Your task to perform on an android device: open app "Google Home" (install if not already installed) Image 0: 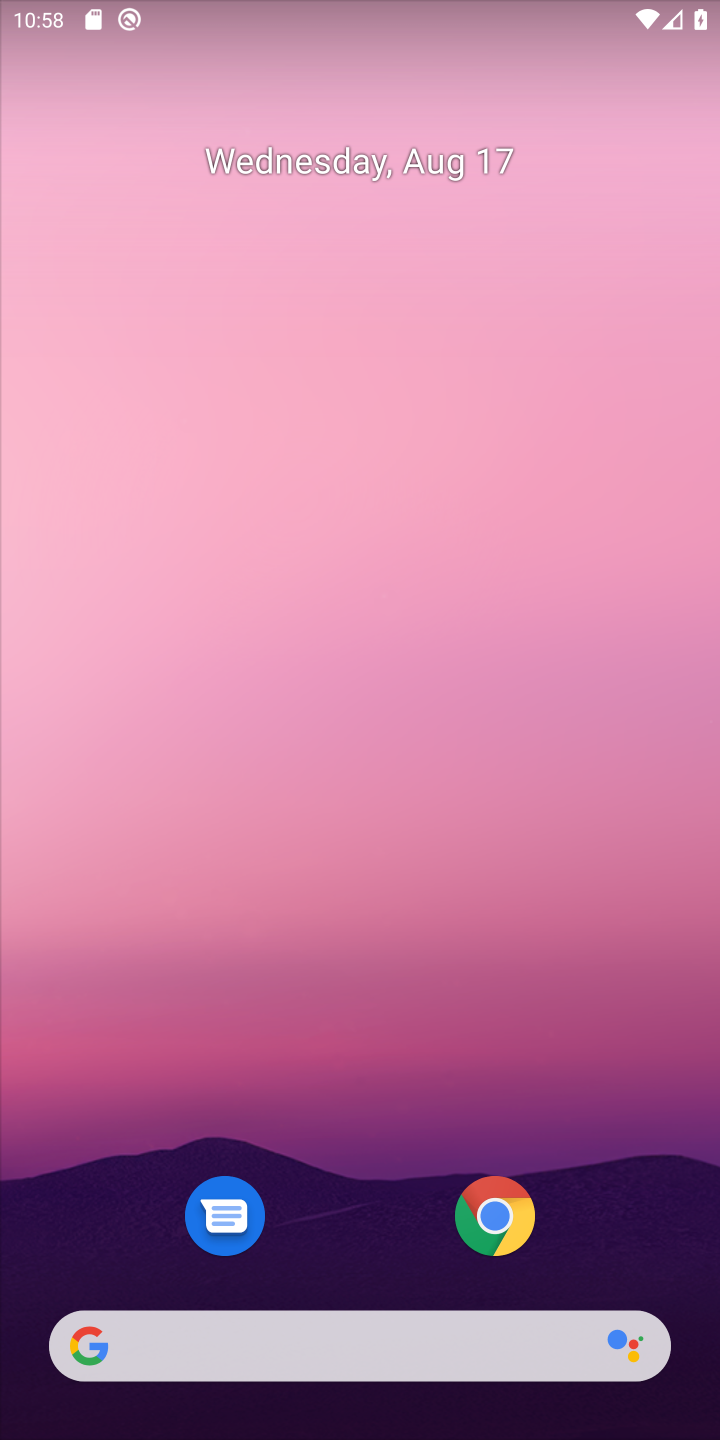
Step 0: drag from (380, 1122) to (340, 637)
Your task to perform on an android device: open app "Google Home" (install if not already installed) Image 1: 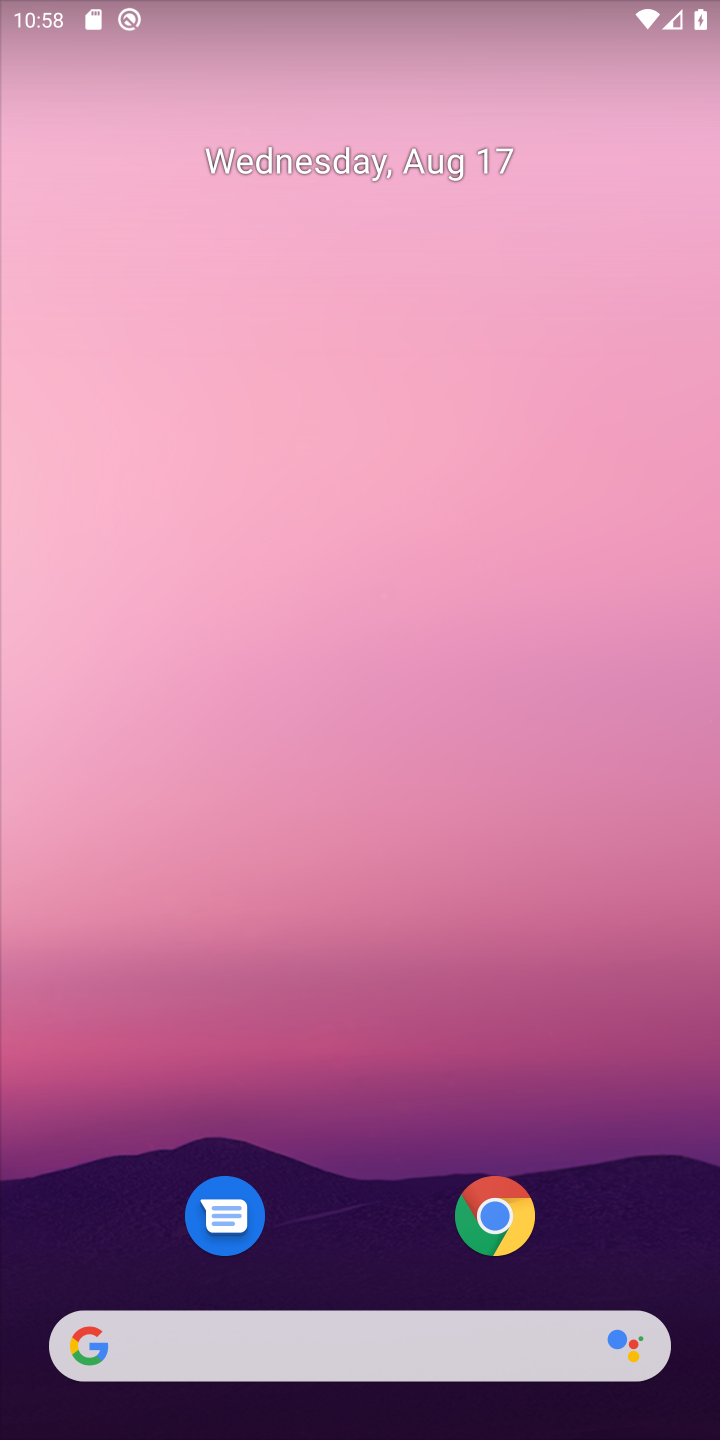
Step 1: drag from (420, 1140) to (389, 488)
Your task to perform on an android device: open app "Google Home" (install if not already installed) Image 2: 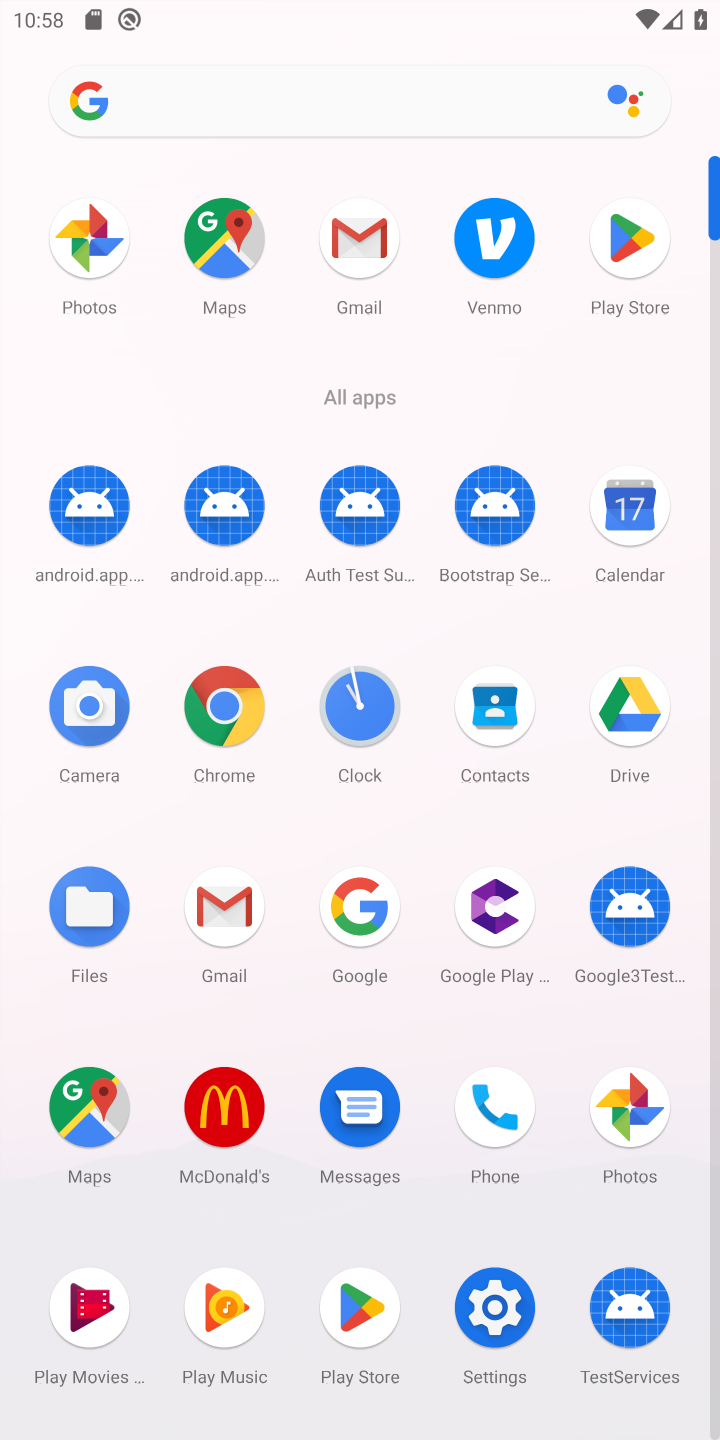
Step 2: click (362, 1301)
Your task to perform on an android device: open app "Google Home" (install if not already installed) Image 3: 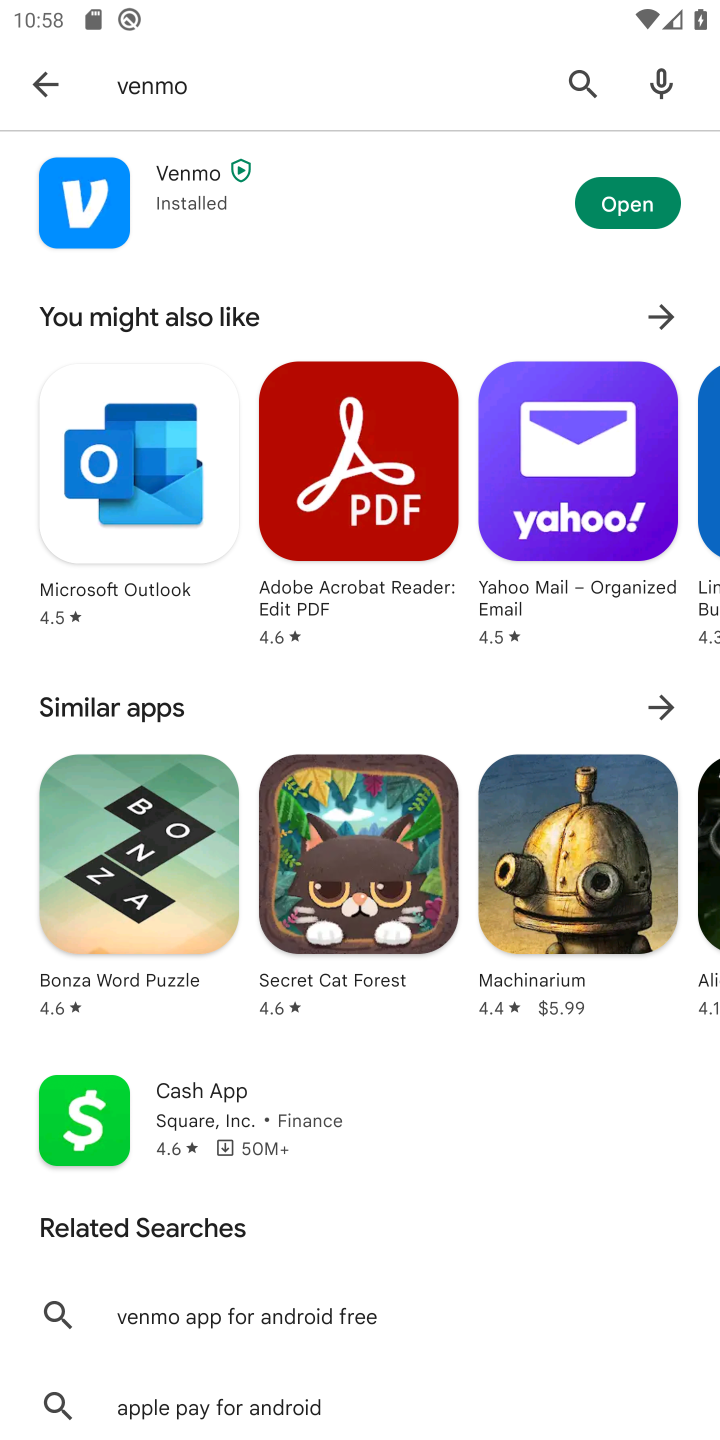
Step 3: click (570, 81)
Your task to perform on an android device: open app "Google Home" (install if not already installed) Image 4: 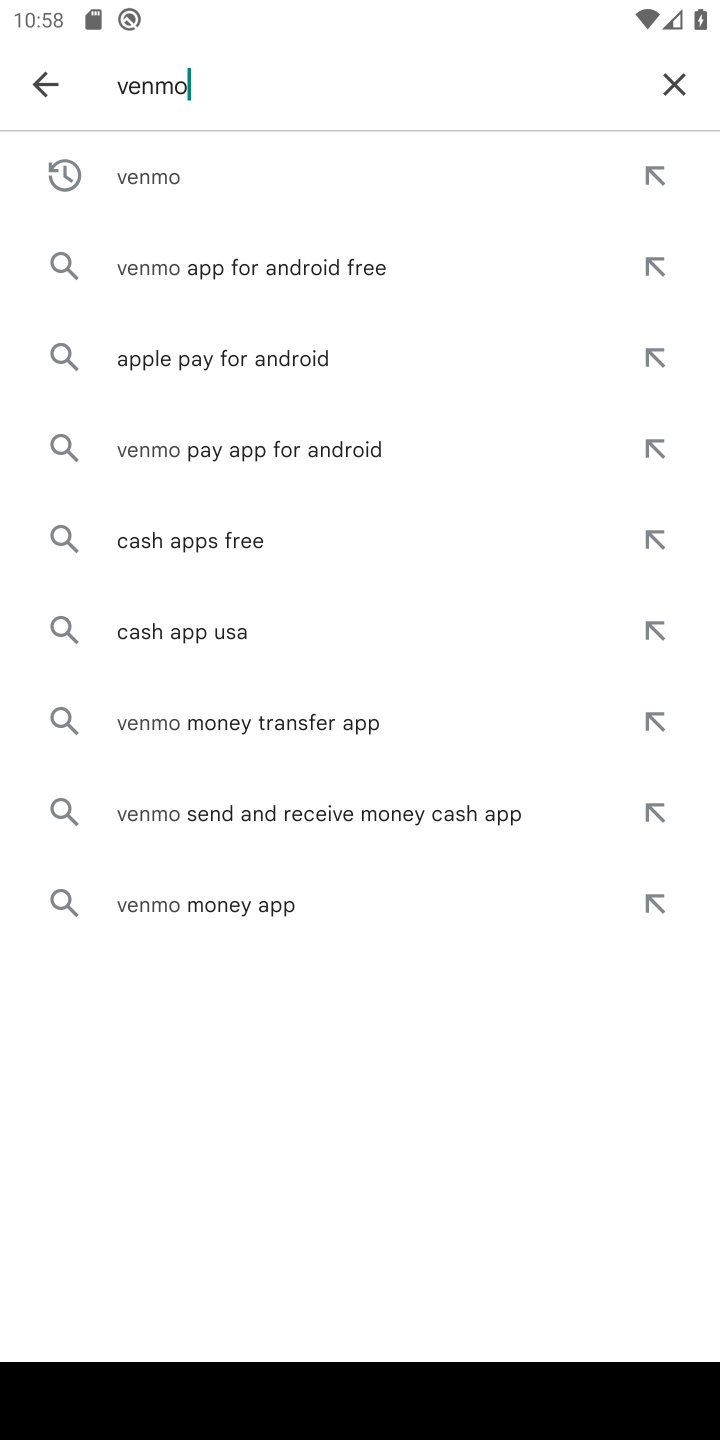
Step 4: click (683, 93)
Your task to perform on an android device: open app "Google Home" (install if not already installed) Image 5: 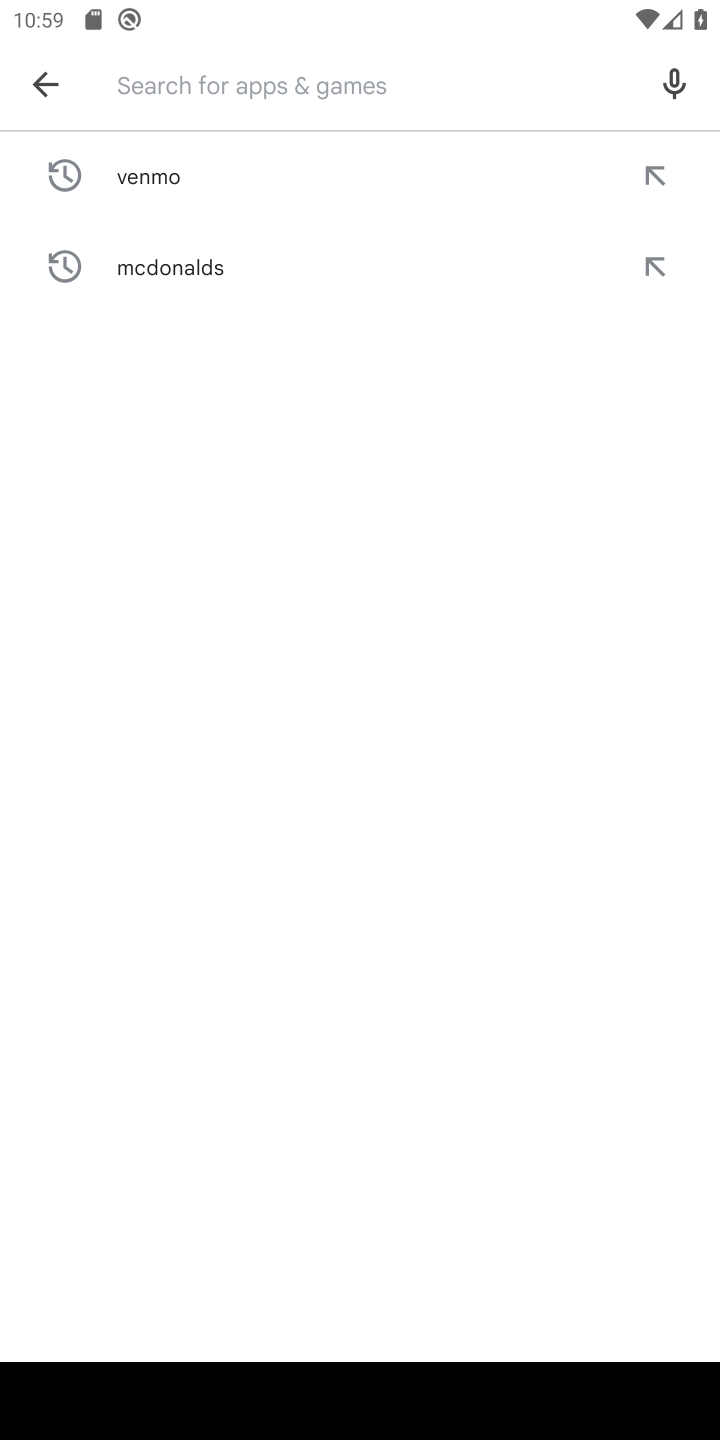
Step 5: type "google home"
Your task to perform on an android device: open app "Google Home" (install if not already installed) Image 6: 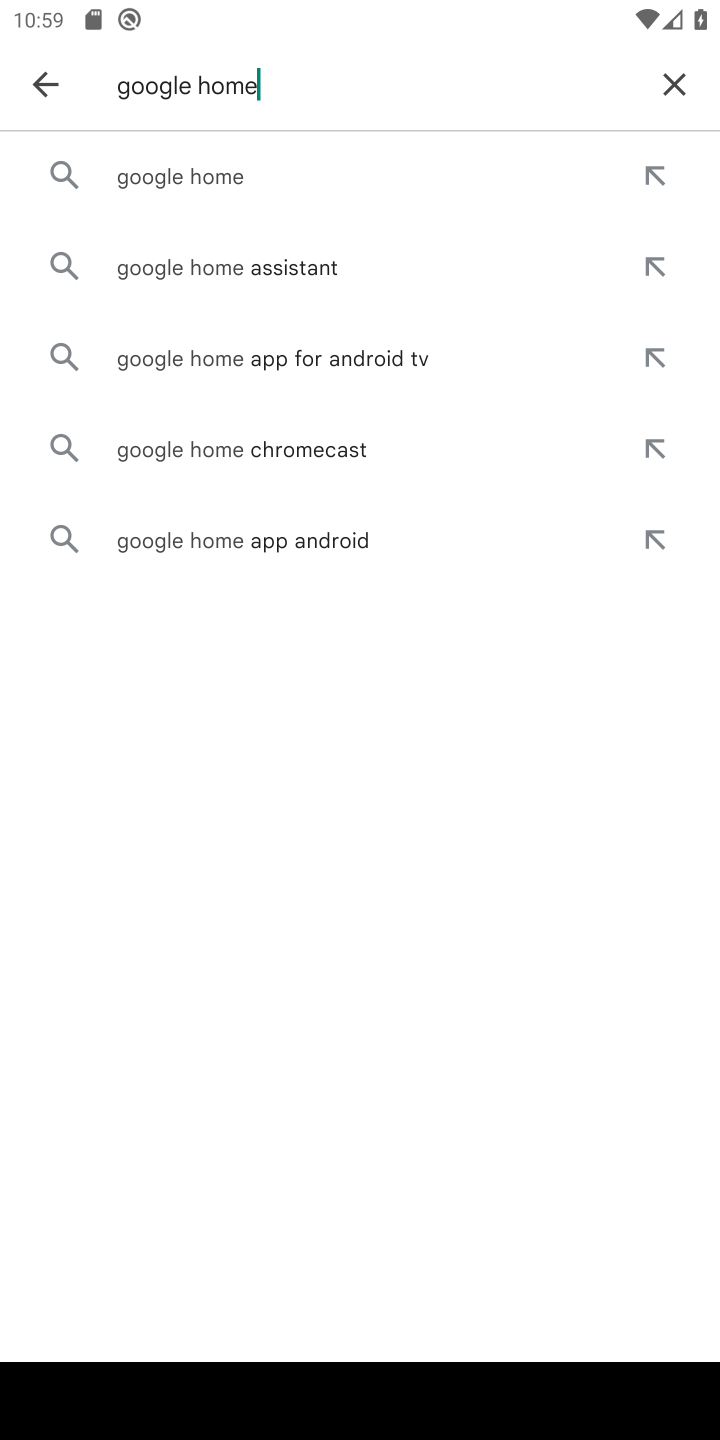
Step 6: click (127, 166)
Your task to perform on an android device: open app "Google Home" (install if not already installed) Image 7: 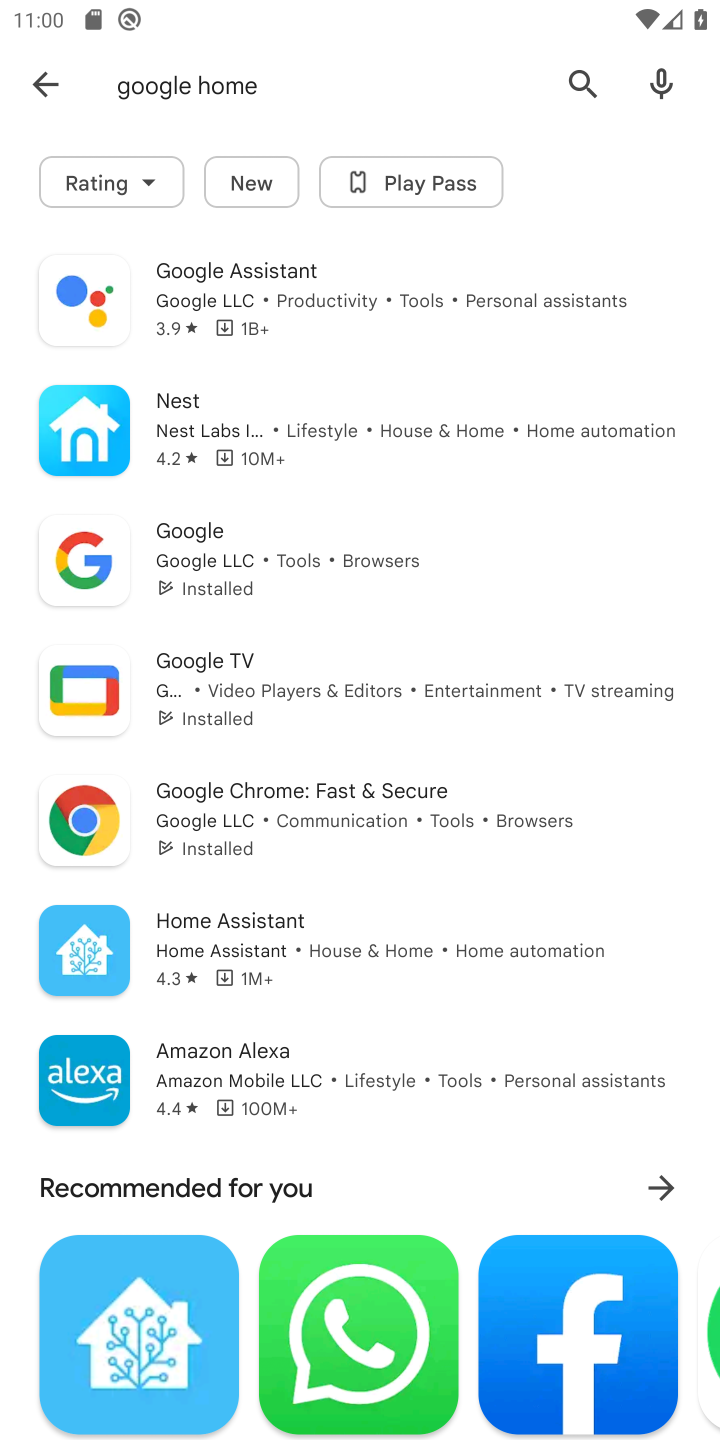
Step 7: task complete